Your task to perform on an android device: find photos in the google photos app Image 0: 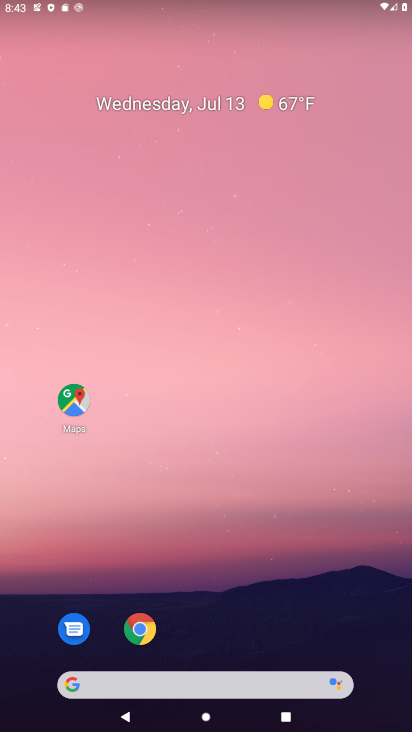
Step 0: click (394, 432)
Your task to perform on an android device: find photos in the google photos app Image 1: 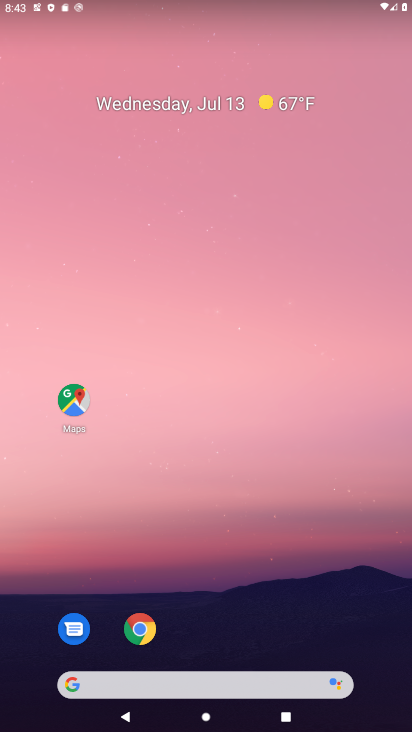
Step 1: drag from (191, 577) to (170, 23)
Your task to perform on an android device: find photos in the google photos app Image 2: 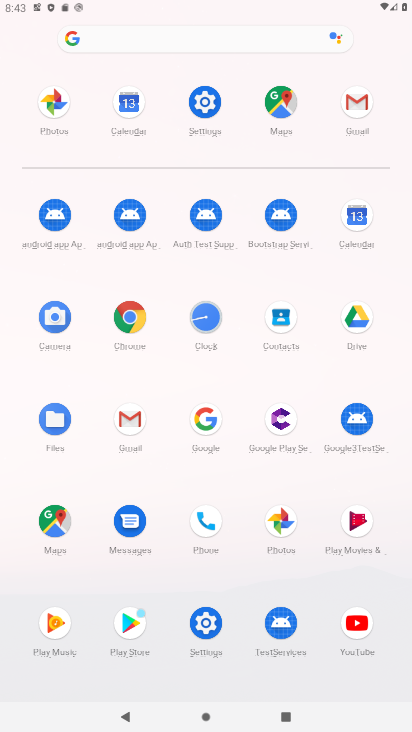
Step 2: click (285, 532)
Your task to perform on an android device: find photos in the google photos app Image 3: 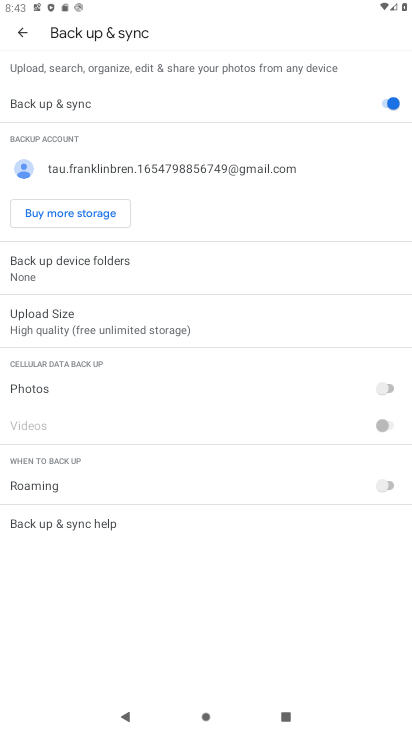
Step 3: click (20, 27)
Your task to perform on an android device: find photos in the google photos app Image 4: 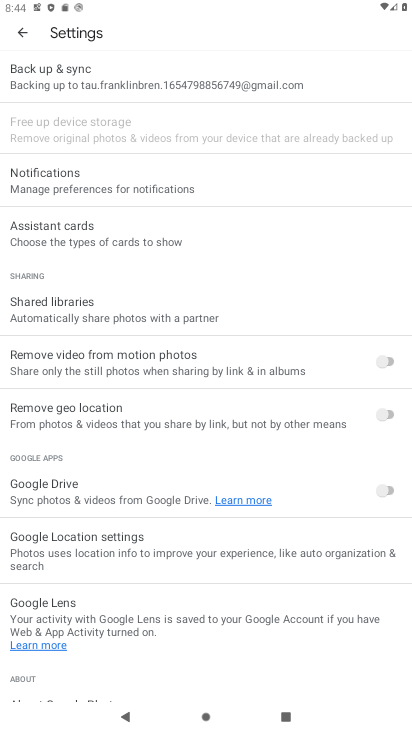
Step 4: click (26, 30)
Your task to perform on an android device: find photos in the google photos app Image 5: 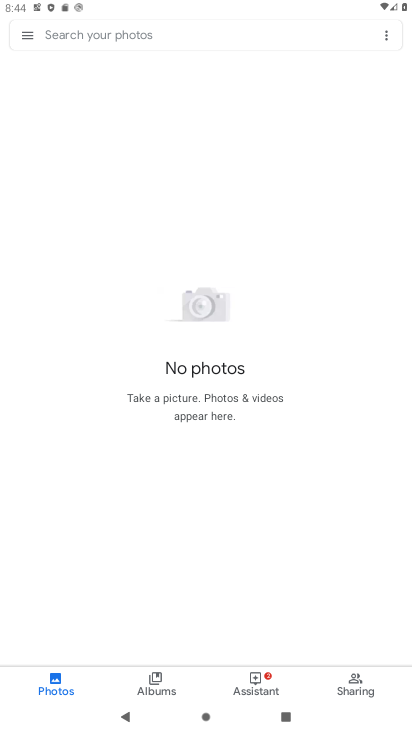
Step 5: task complete